Your task to perform on an android device: Open the settings Image 0: 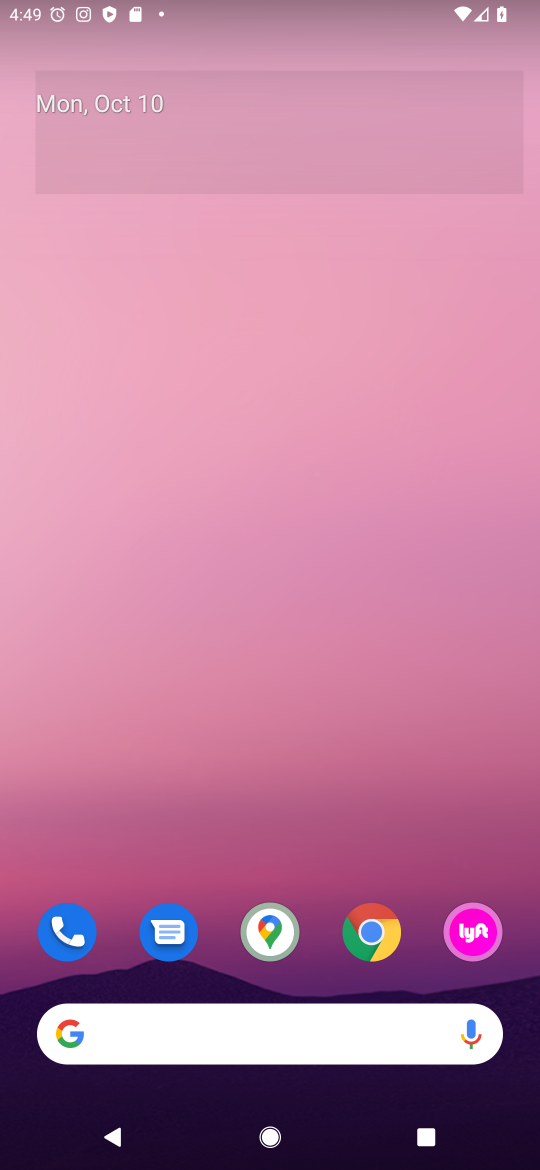
Step 0: press home button
Your task to perform on an android device: Open the settings Image 1: 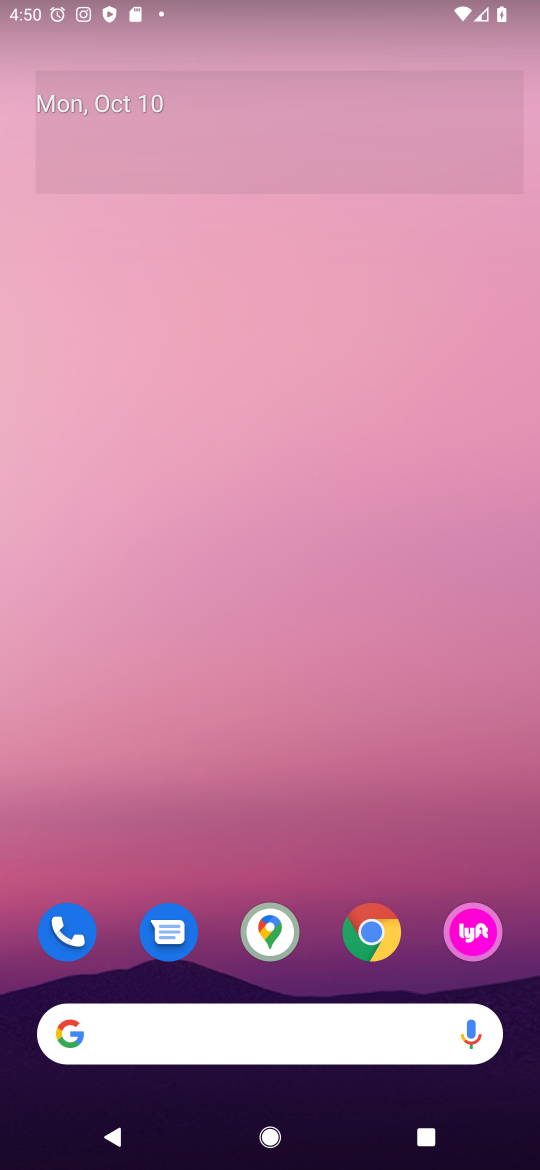
Step 1: drag from (472, 685) to (448, 140)
Your task to perform on an android device: Open the settings Image 2: 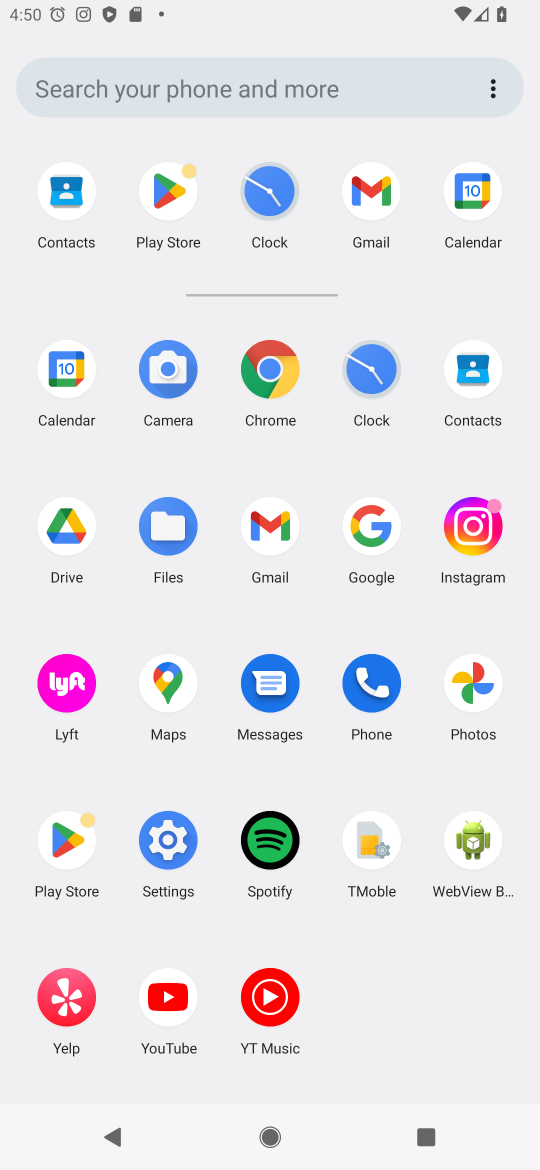
Step 2: click (170, 840)
Your task to perform on an android device: Open the settings Image 3: 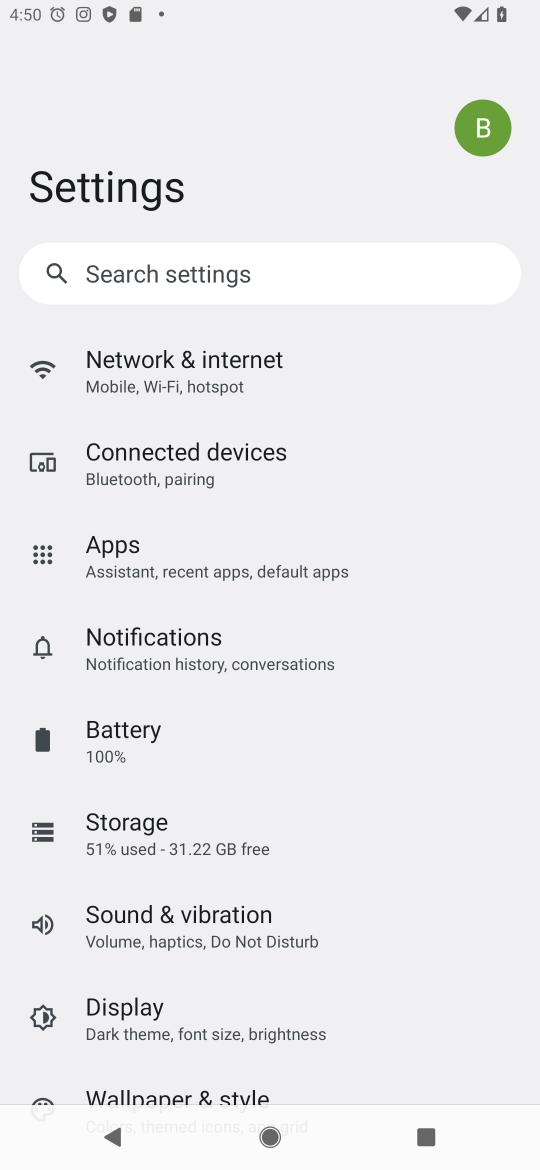
Step 3: task complete